Your task to perform on an android device: Open the web browser Image 0: 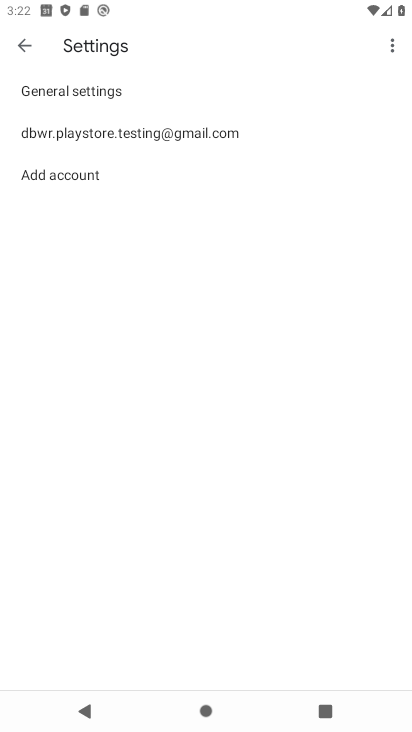
Step 0: press home button
Your task to perform on an android device: Open the web browser Image 1: 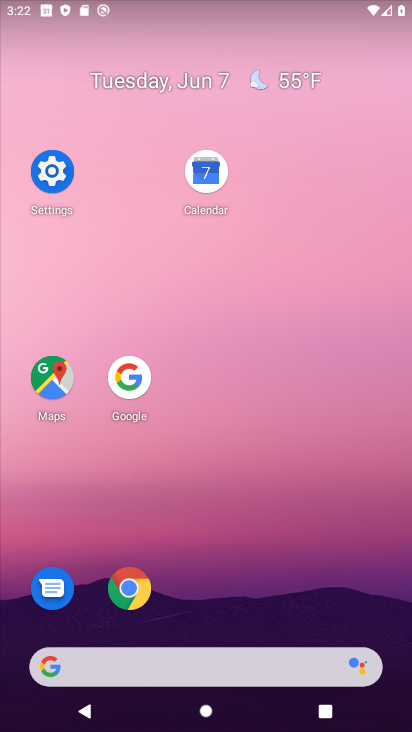
Step 1: click (137, 583)
Your task to perform on an android device: Open the web browser Image 2: 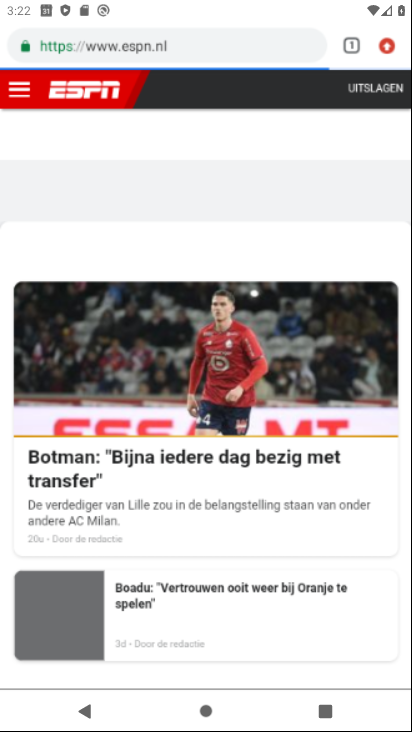
Step 2: task complete